Your task to perform on an android device: Clear the cart on newegg. Search for energizer triple a on newegg, select the first entry, add it to the cart, then select checkout. Image 0: 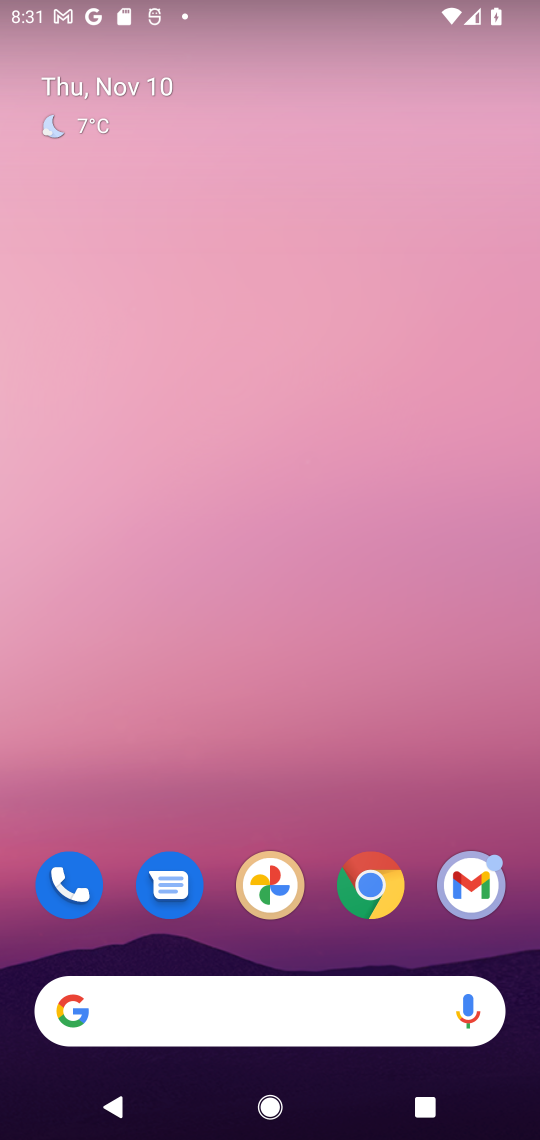
Step 0: click (366, 897)
Your task to perform on an android device: Clear the cart on newegg. Search for energizer triple a on newegg, select the first entry, add it to the cart, then select checkout. Image 1: 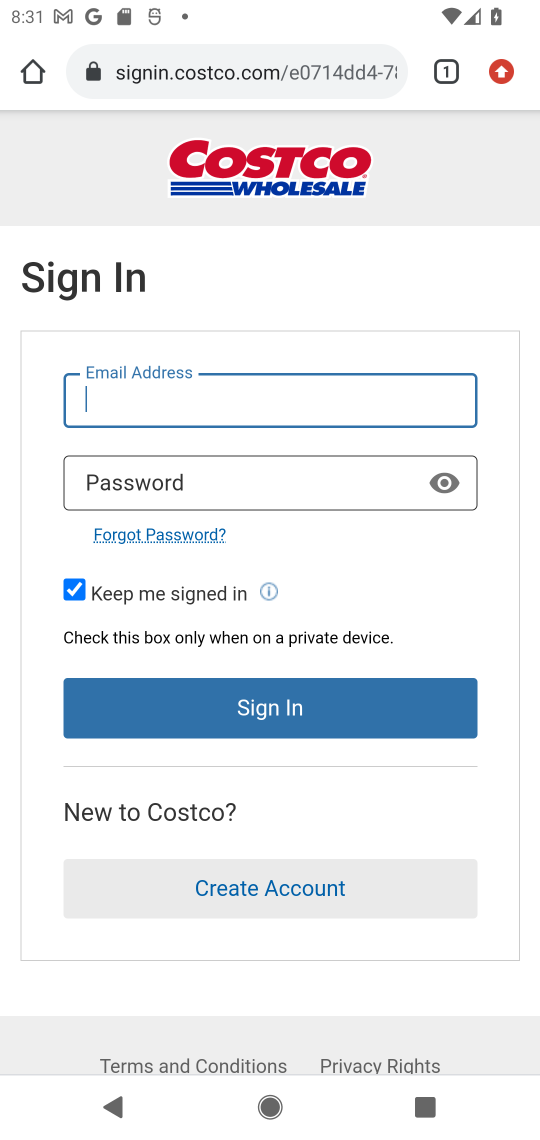
Step 1: click (282, 75)
Your task to perform on an android device: Clear the cart on newegg. Search for energizer triple a on newegg, select the first entry, add it to the cart, then select checkout. Image 2: 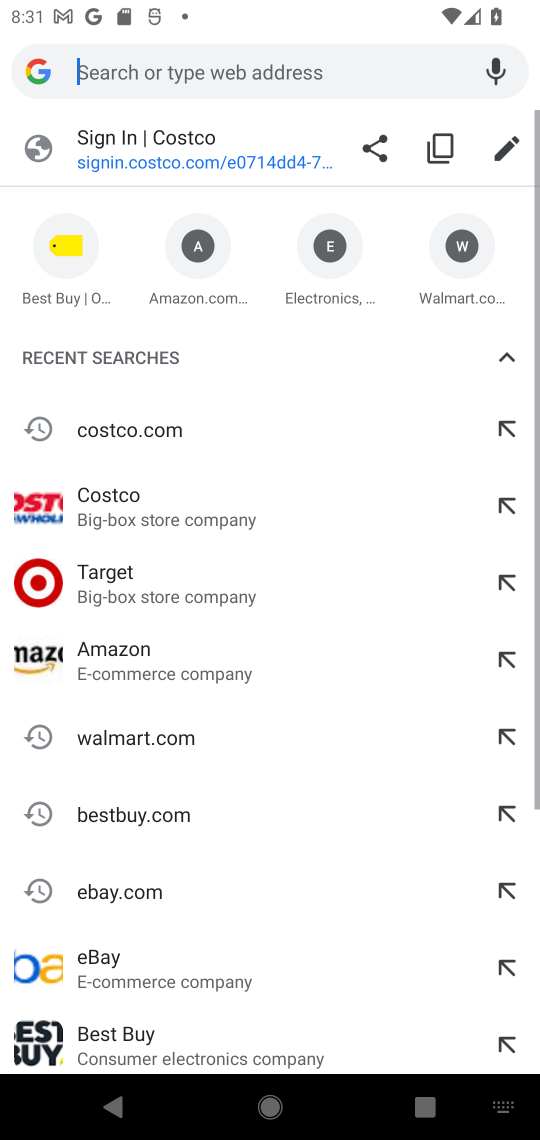
Step 2: type "newegg"
Your task to perform on an android device: Clear the cart on newegg. Search for energizer triple a on newegg, select the first entry, add it to the cart, then select checkout. Image 3: 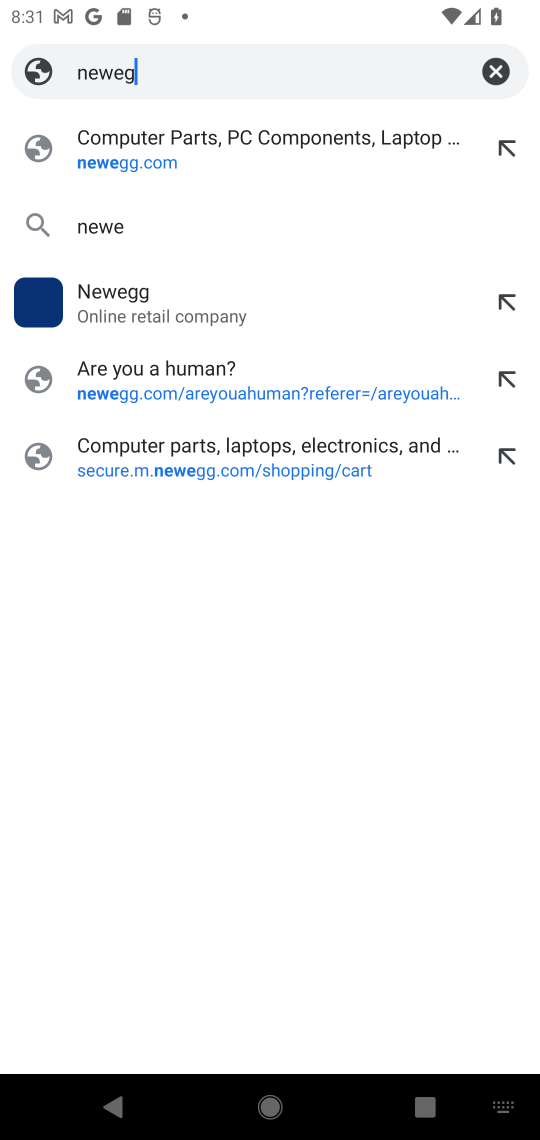
Step 3: press enter
Your task to perform on an android device: Clear the cart on newegg. Search for energizer triple a on newegg, select the first entry, add it to the cart, then select checkout. Image 4: 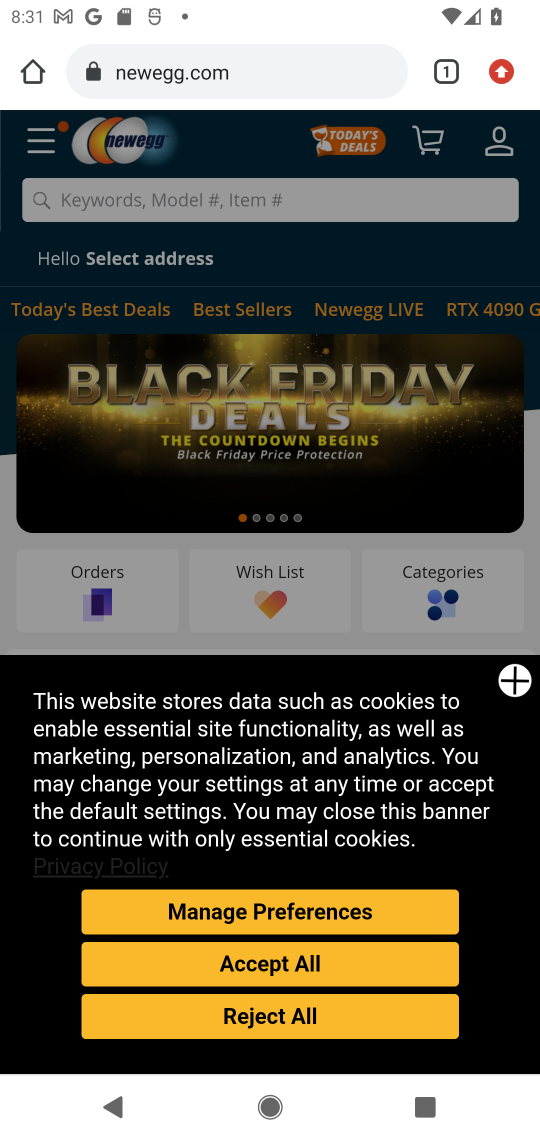
Step 4: click (436, 150)
Your task to perform on an android device: Clear the cart on newegg. Search for energizer triple a on newegg, select the first entry, add it to the cart, then select checkout. Image 5: 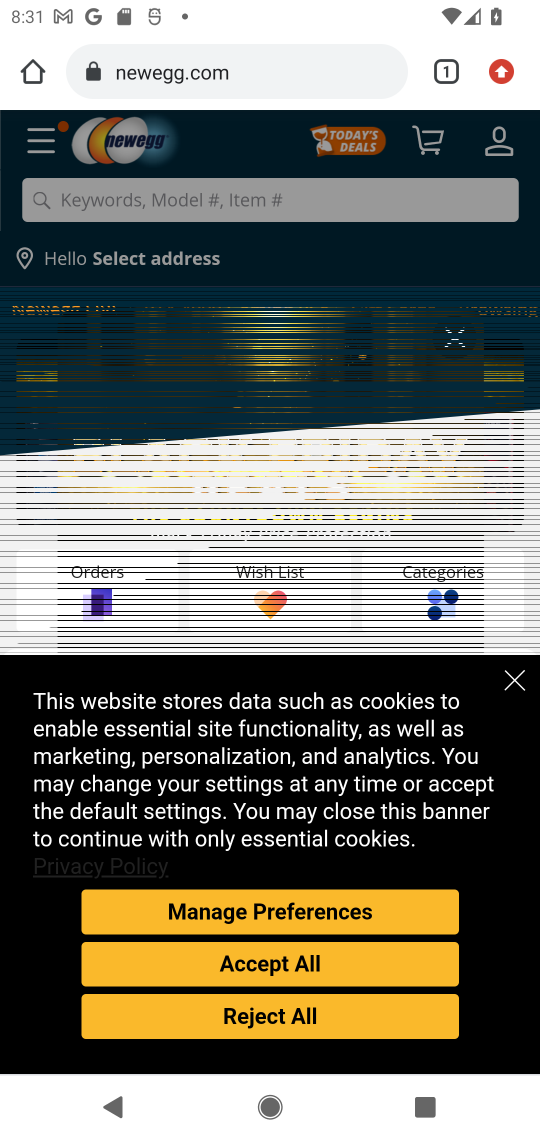
Step 5: click (458, 343)
Your task to perform on an android device: Clear the cart on newegg. Search for energizer triple a on newegg, select the first entry, add it to the cart, then select checkout. Image 6: 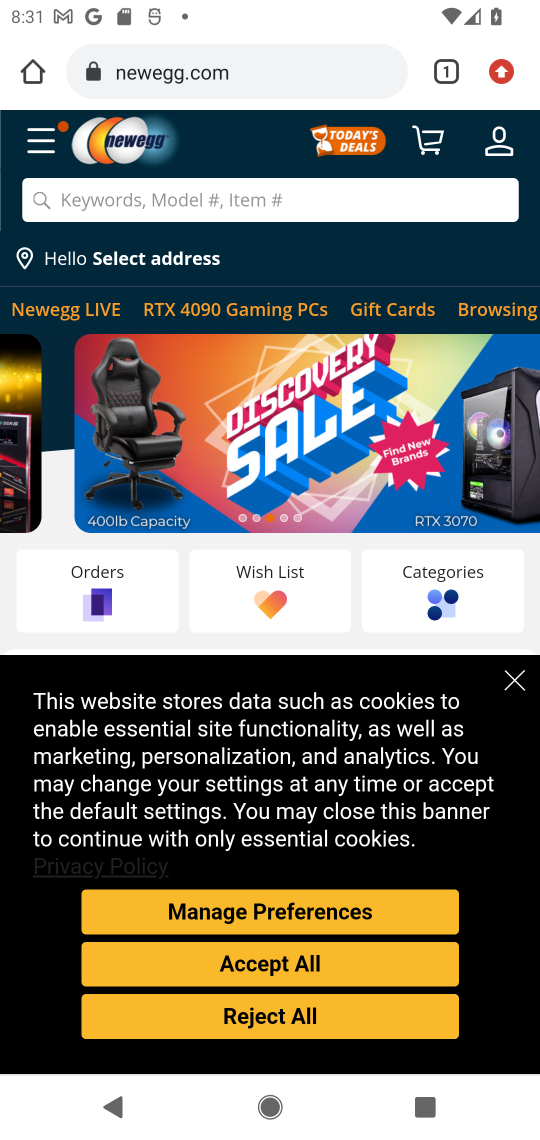
Step 6: click (318, 969)
Your task to perform on an android device: Clear the cart on newegg. Search for energizer triple a on newegg, select the first entry, add it to the cart, then select checkout. Image 7: 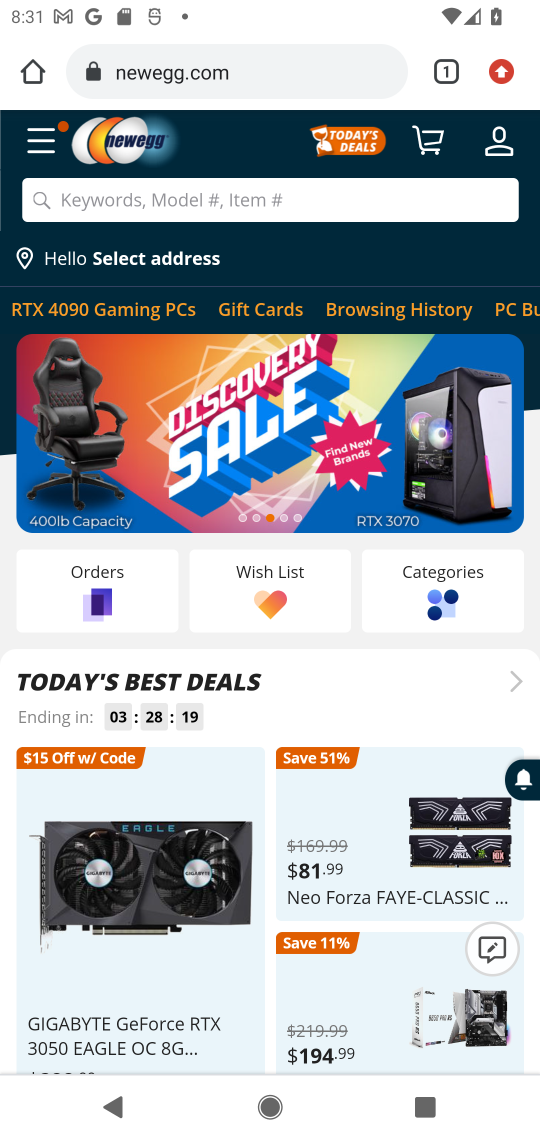
Step 7: click (428, 143)
Your task to perform on an android device: Clear the cart on newegg. Search for energizer triple a on newegg, select the first entry, add it to the cart, then select checkout. Image 8: 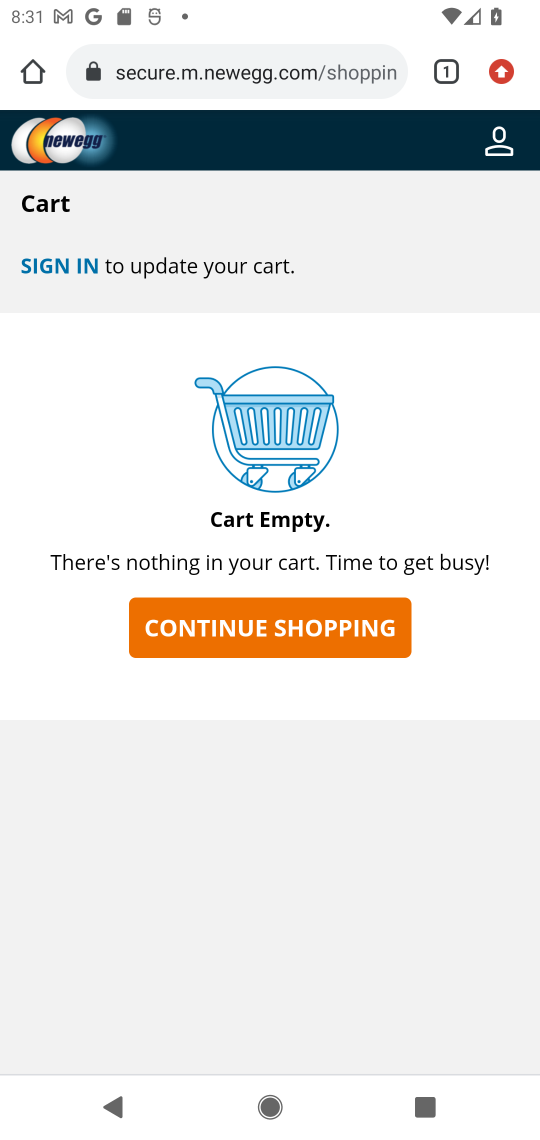
Step 8: press back button
Your task to perform on an android device: Clear the cart on newegg. Search for energizer triple a on newegg, select the first entry, add it to the cart, then select checkout. Image 9: 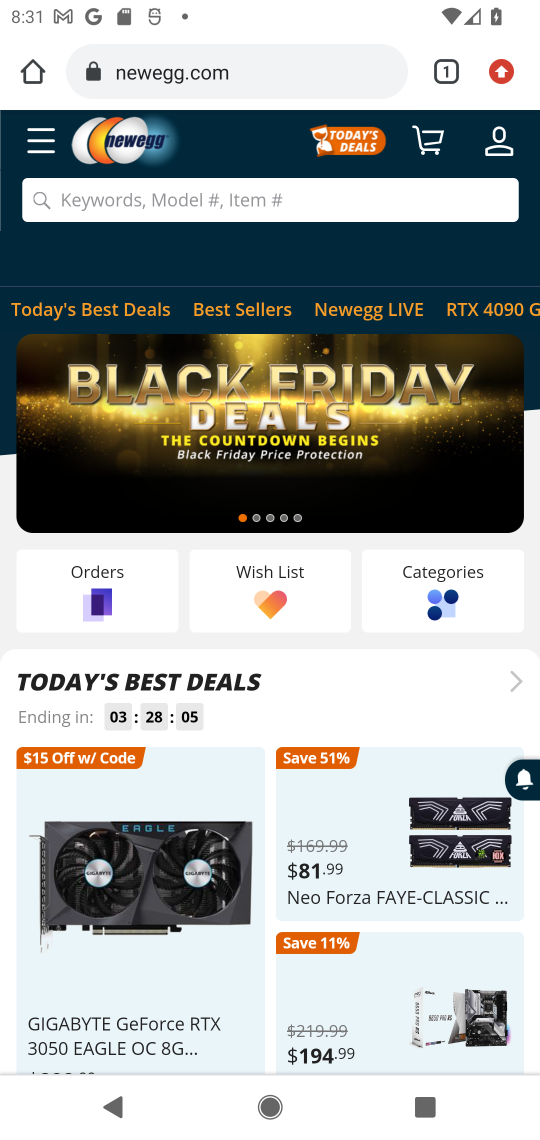
Step 9: click (363, 197)
Your task to perform on an android device: Clear the cart on newegg. Search for energizer triple a on newegg, select the first entry, add it to the cart, then select checkout. Image 10: 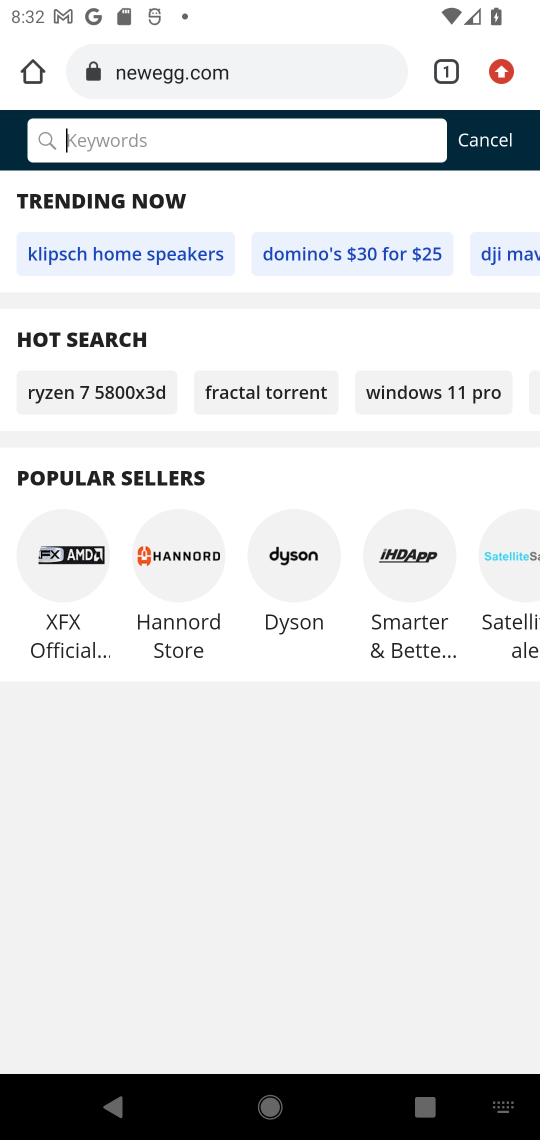
Step 10: press enter
Your task to perform on an android device: Clear the cart on newegg. Search for energizer triple a on newegg, select the first entry, add it to the cart, then select checkout. Image 11: 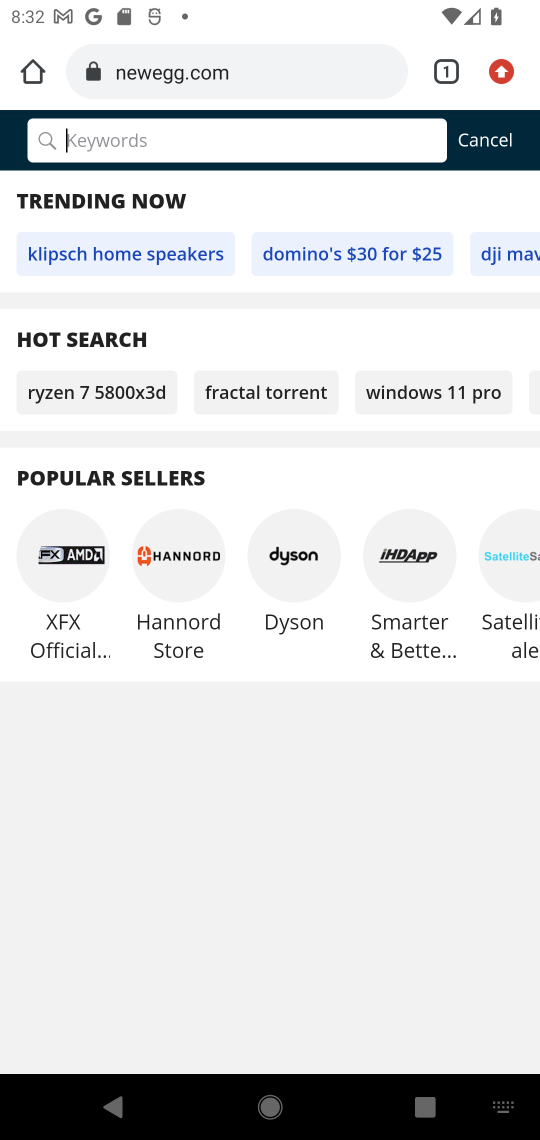
Step 11: type "energizer triple a"
Your task to perform on an android device: Clear the cart on newegg. Search for energizer triple a on newegg, select the first entry, add it to the cart, then select checkout. Image 12: 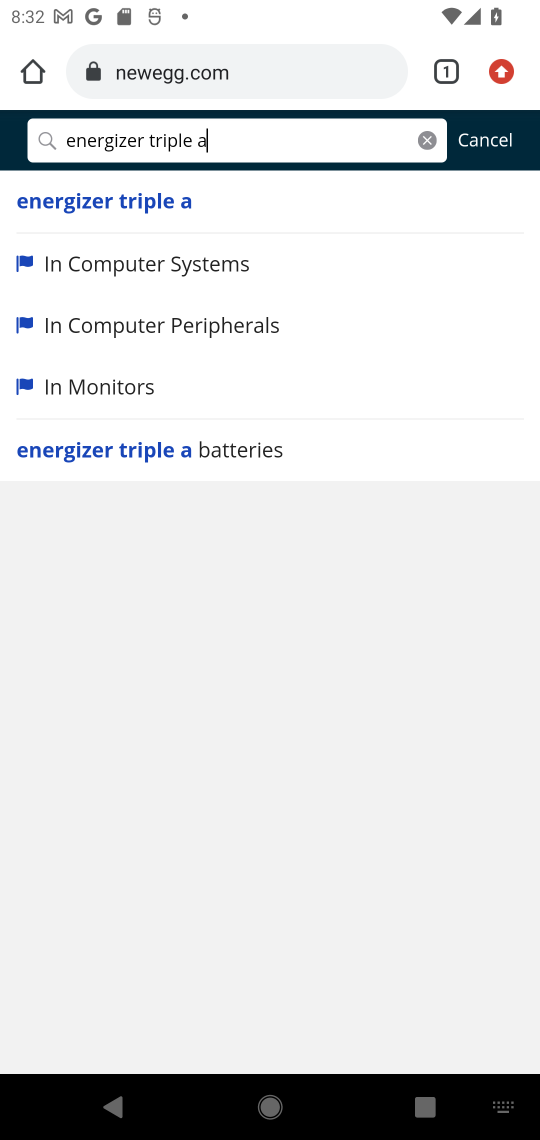
Step 12: click (96, 217)
Your task to perform on an android device: Clear the cart on newegg. Search for energizer triple a on newegg, select the first entry, add it to the cart, then select checkout. Image 13: 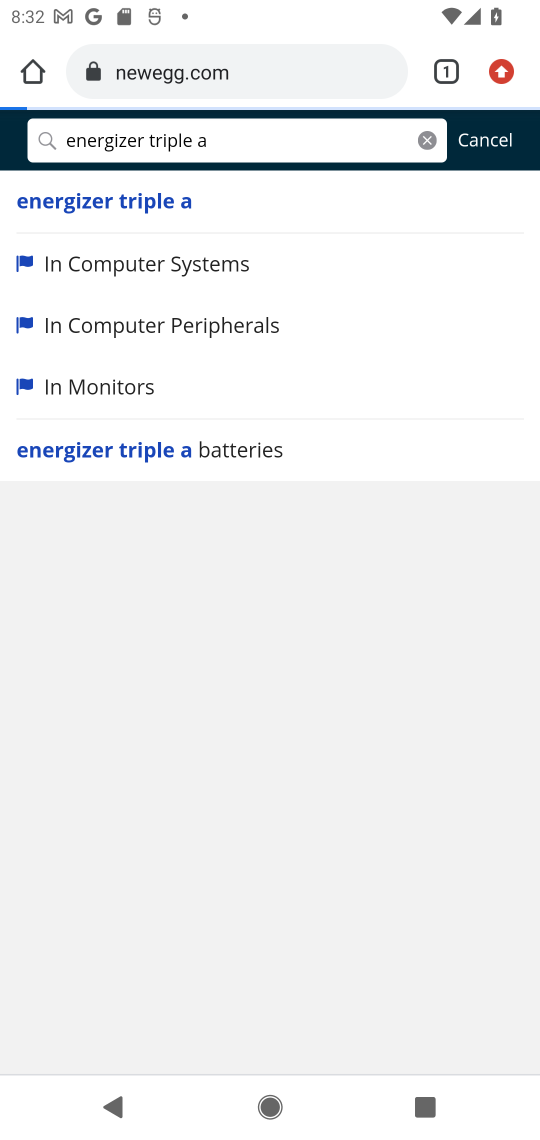
Step 13: click (103, 209)
Your task to perform on an android device: Clear the cart on newegg. Search for energizer triple a on newegg, select the first entry, add it to the cart, then select checkout. Image 14: 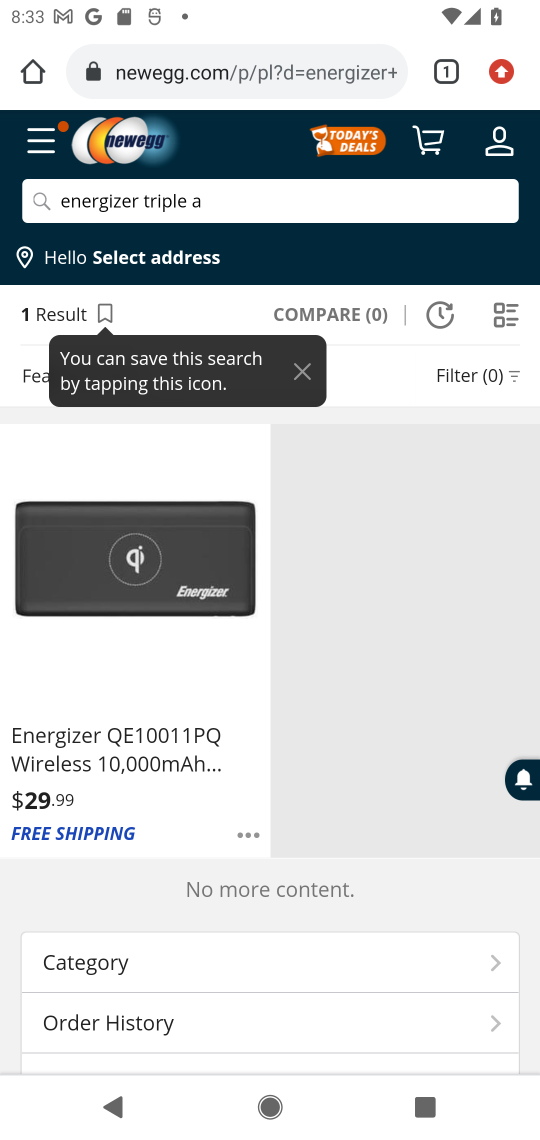
Step 14: task complete